Your task to perform on an android device: Go to privacy settings Image 0: 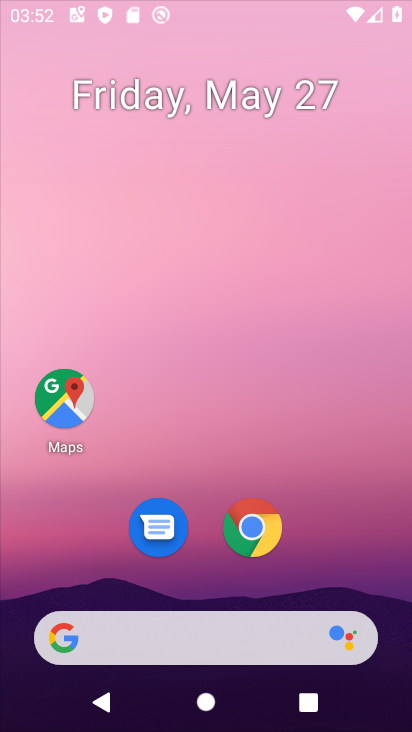
Step 0: drag from (336, 548) to (340, 76)
Your task to perform on an android device: Go to privacy settings Image 1: 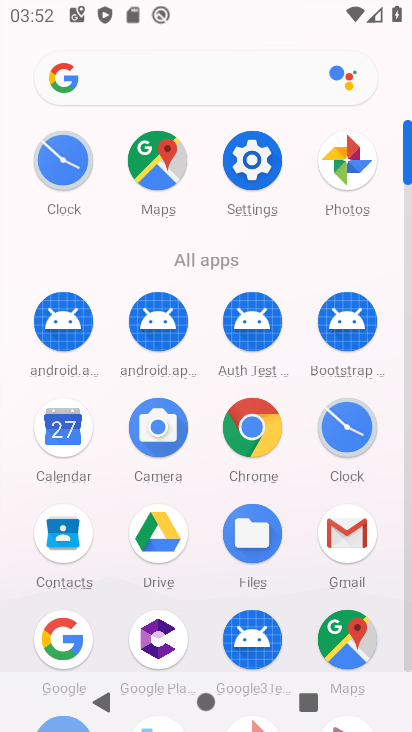
Step 1: click (403, 646)
Your task to perform on an android device: Go to privacy settings Image 2: 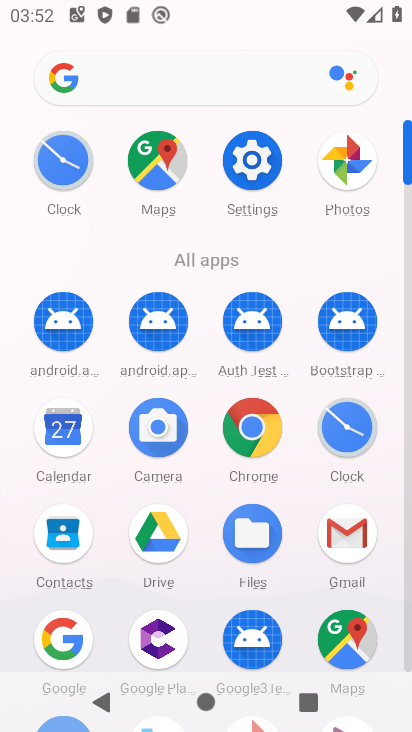
Step 2: click (271, 170)
Your task to perform on an android device: Go to privacy settings Image 3: 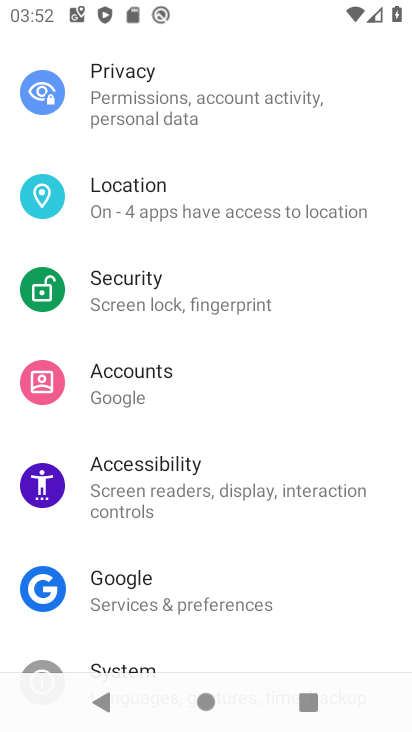
Step 3: drag from (212, 147) to (214, 247)
Your task to perform on an android device: Go to privacy settings Image 4: 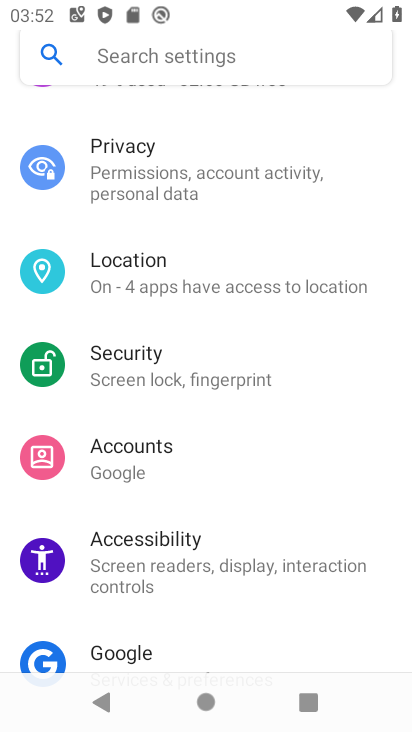
Step 4: click (205, 189)
Your task to perform on an android device: Go to privacy settings Image 5: 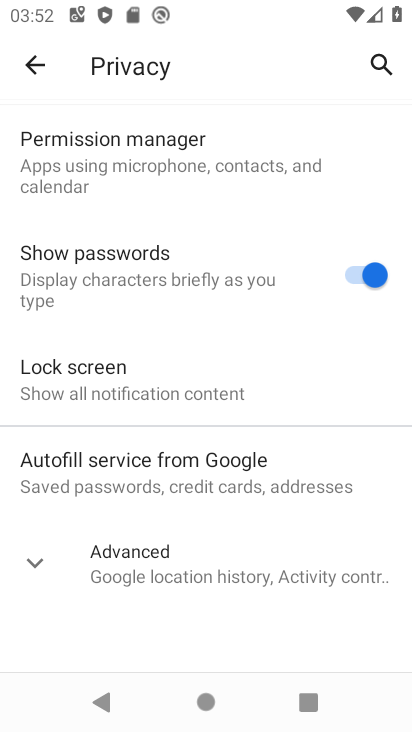
Step 5: task complete